Your task to perform on an android device: What's the news today? Image 0: 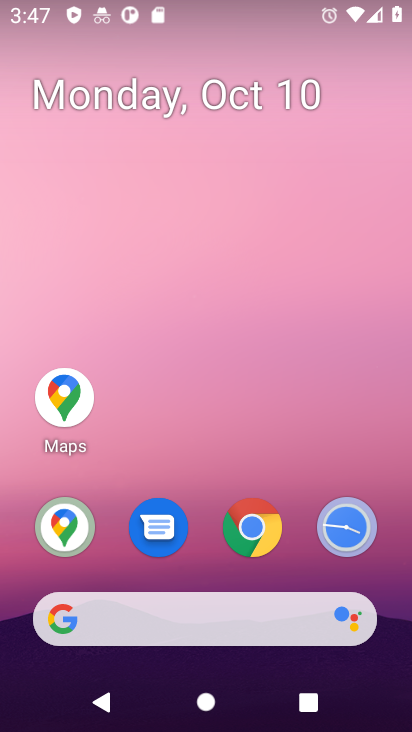
Step 0: drag from (196, 633) to (201, 154)
Your task to perform on an android device: What's the news today? Image 1: 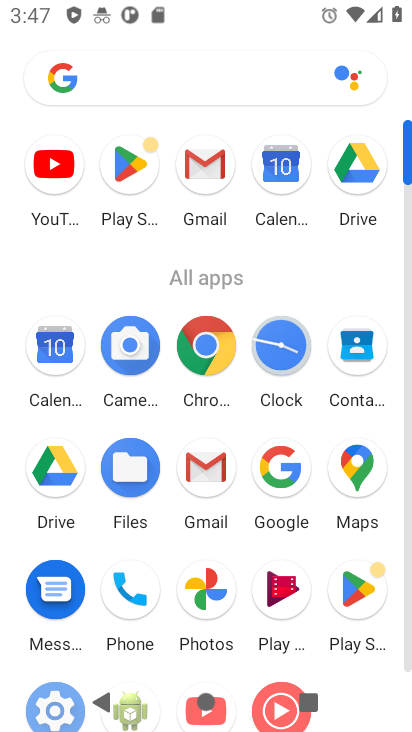
Step 1: click (206, 348)
Your task to perform on an android device: What's the news today? Image 2: 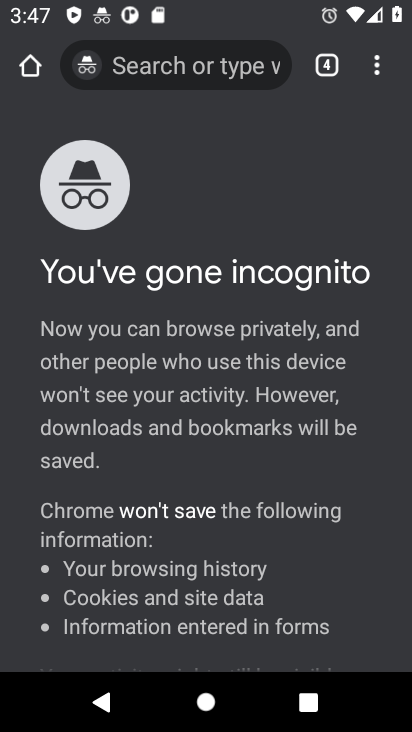
Step 2: click (202, 71)
Your task to perform on an android device: What's the news today? Image 3: 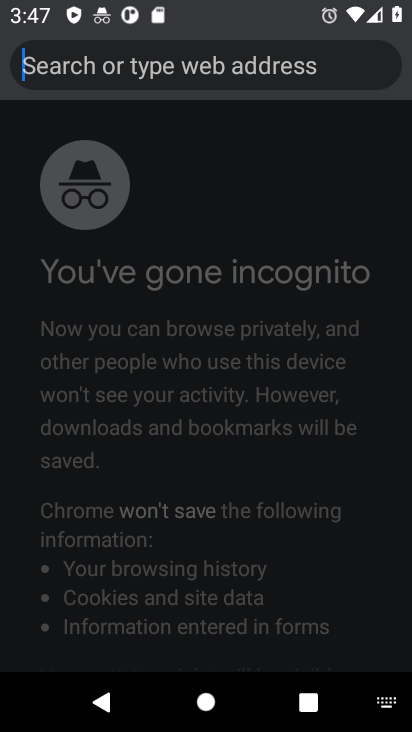
Step 3: type "news today"
Your task to perform on an android device: What's the news today? Image 4: 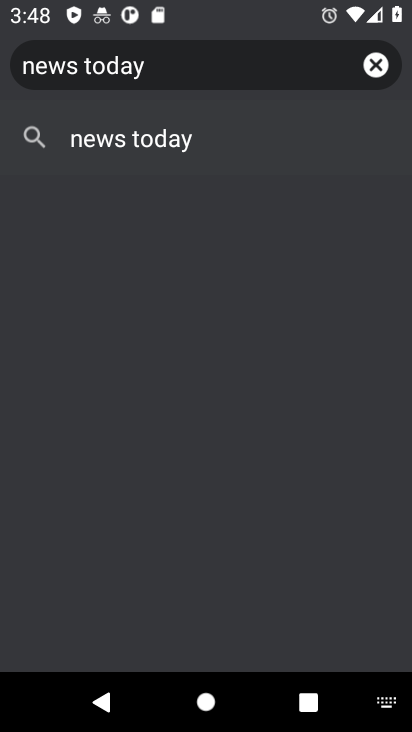
Step 4: click (177, 149)
Your task to perform on an android device: What's the news today? Image 5: 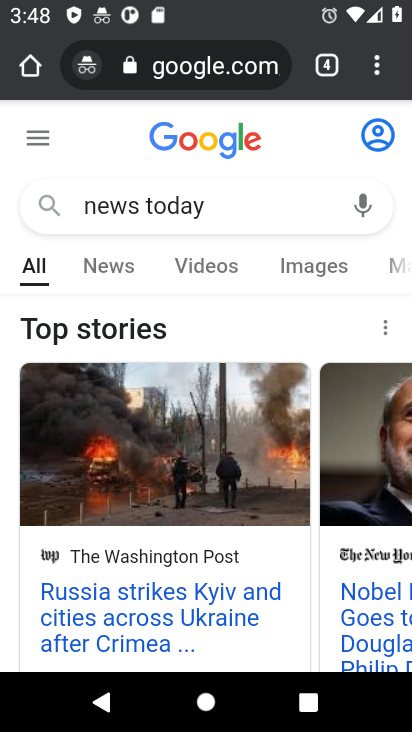
Step 5: drag from (148, 600) to (228, 372)
Your task to perform on an android device: What's the news today? Image 6: 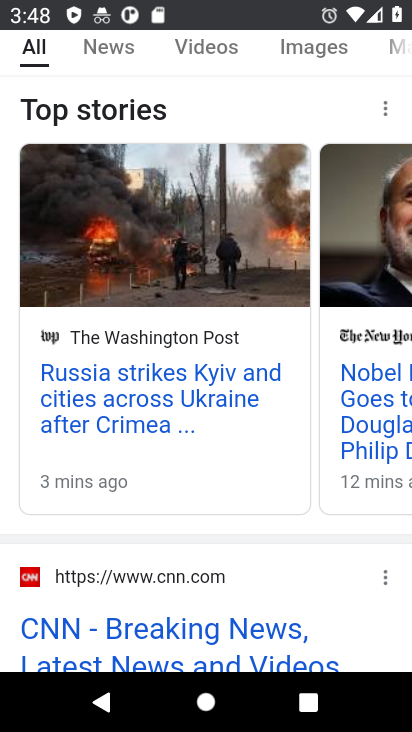
Step 6: drag from (207, 599) to (266, 340)
Your task to perform on an android device: What's the news today? Image 7: 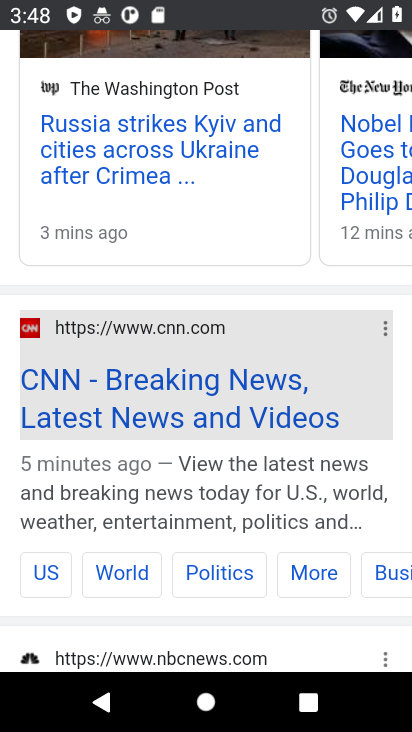
Step 7: drag from (377, 184) to (109, 211)
Your task to perform on an android device: What's the news today? Image 8: 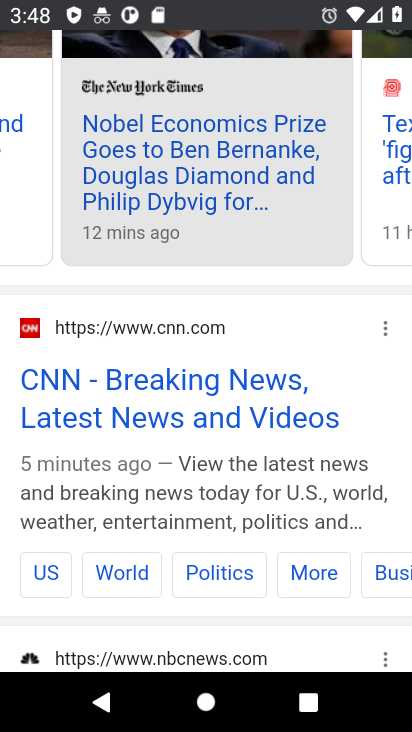
Step 8: click (163, 162)
Your task to perform on an android device: What's the news today? Image 9: 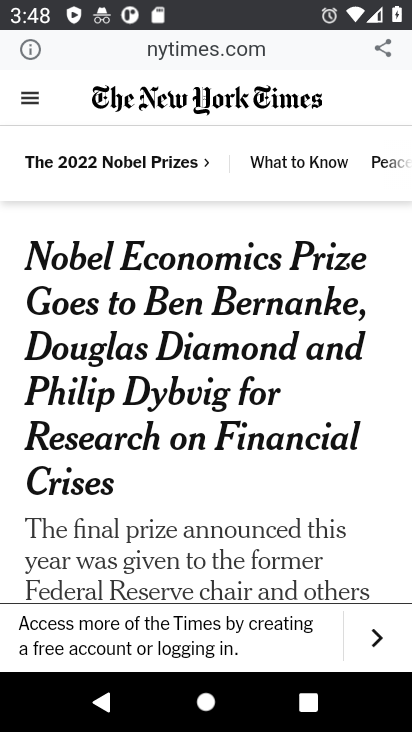
Step 9: task complete